Your task to perform on an android device: Show me recent news Image 0: 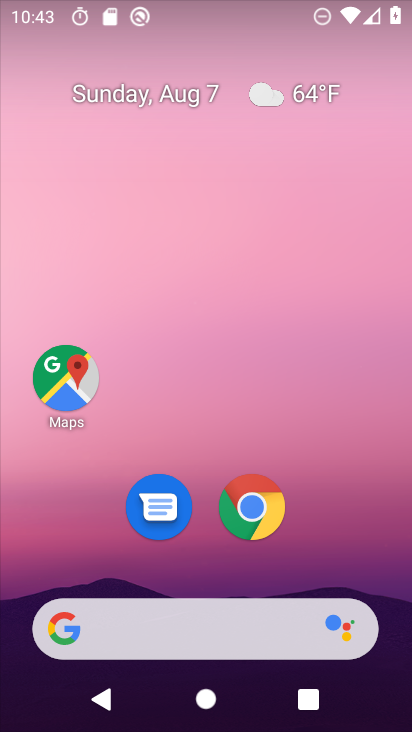
Step 0: drag from (335, 509) to (295, 118)
Your task to perform on an android device: Show me recent news Image 1: 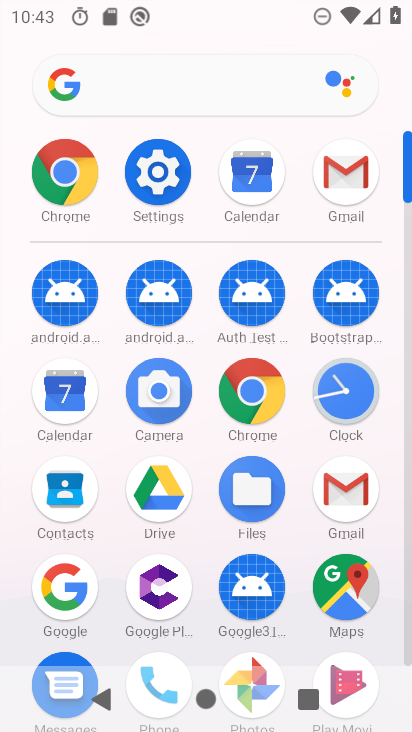
Step 1: click (256, 395)
Your task to perform on an android device: Show me recent news Image 2: 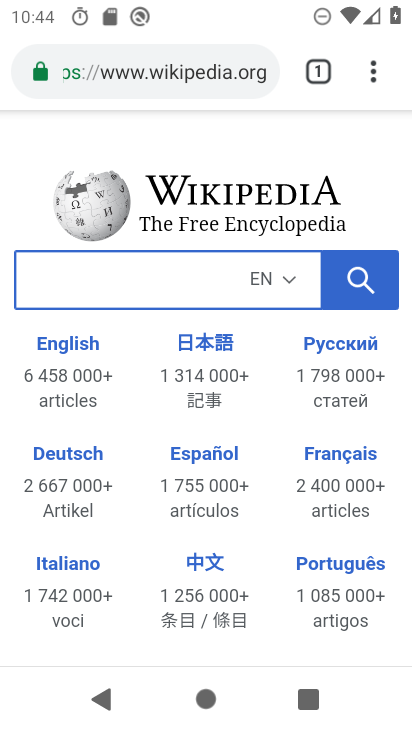
Step 2: click (222, 69)
Your task to perform on an android device: Show me recent news Image 3: 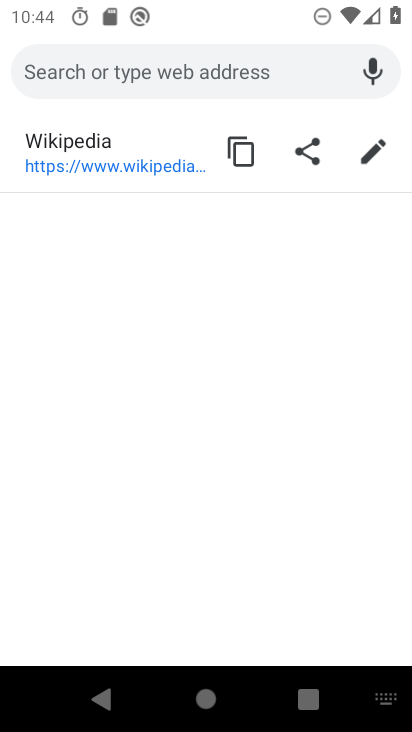
Step 3: type "news"
Your task to perform on an android device: Show me recent news Image 4: 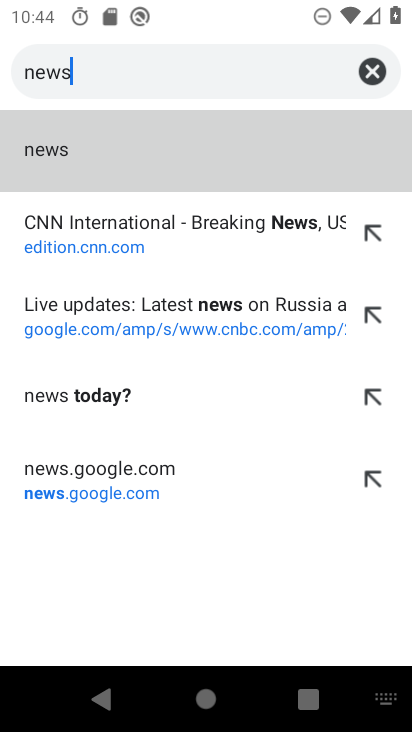
Step 4: click (66, 149)
Your task to perform on an android device: Show me recent news Image 5: 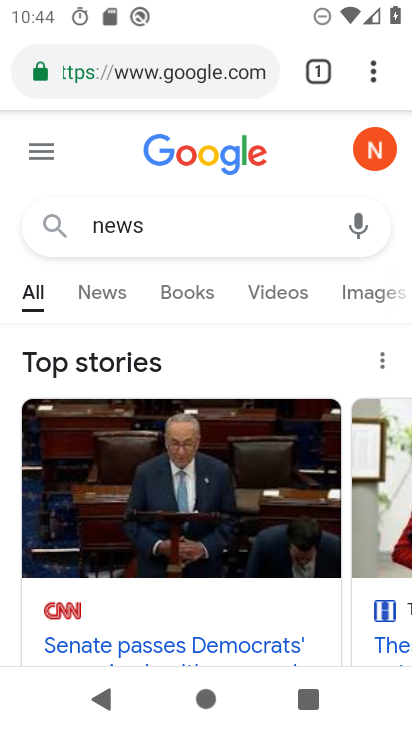
Step 5: drag from (292, 351) to (321, 14)
Your task to perform on an android device: Show me recent news Image 6: 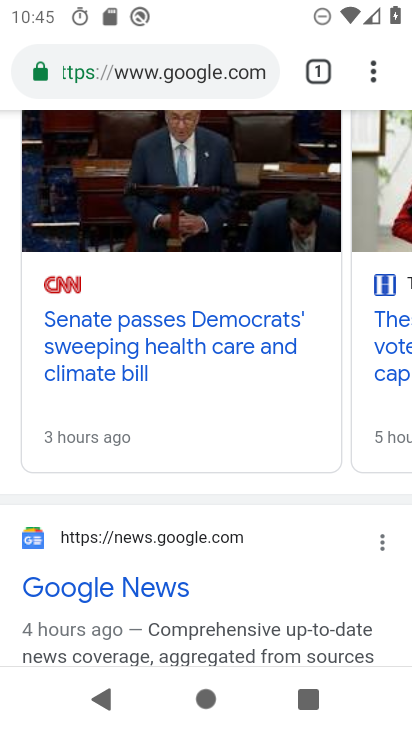
Step 6: click (148, 591)
Your task to perform on an android device: Show me recent news Image 7: 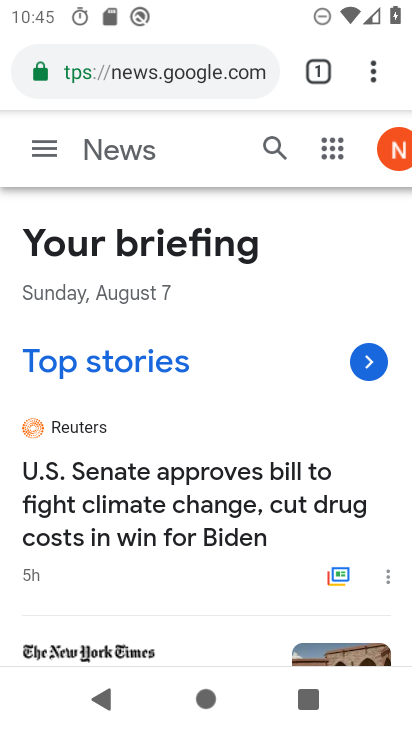
Step 7: task complete